Your task to perform on an android device: Clear the cart on bestbuy.com. Search for razer kraken on bestbuy.com, select the first entry, add it to the cart, then select checkout. Image 0: 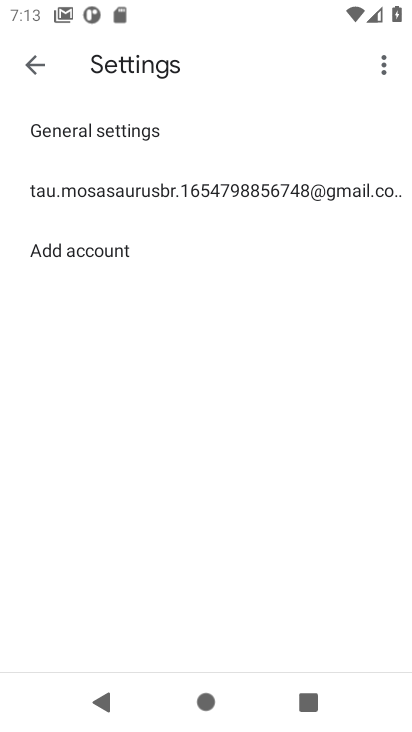
Step 0: press home button
Your task to perform on an android device: Clear the cart on bestbuy.com. Search for razer kraken on bestbuy.com, select the first entry, add it to the cart, then select checkout. Image 1: 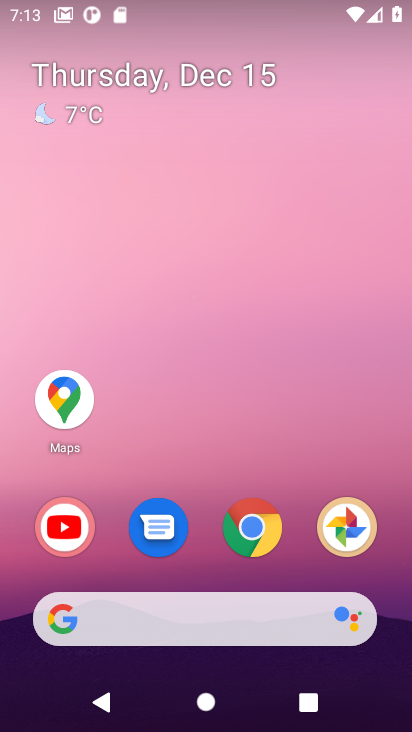
Step 1: click (254, 547)
Your task to perform on an android device: Clear the cart on bestbuy.com. Search for razer kraken on bestbuy.com, select the first entry, add it to the cart, then select checkout. Image 2: 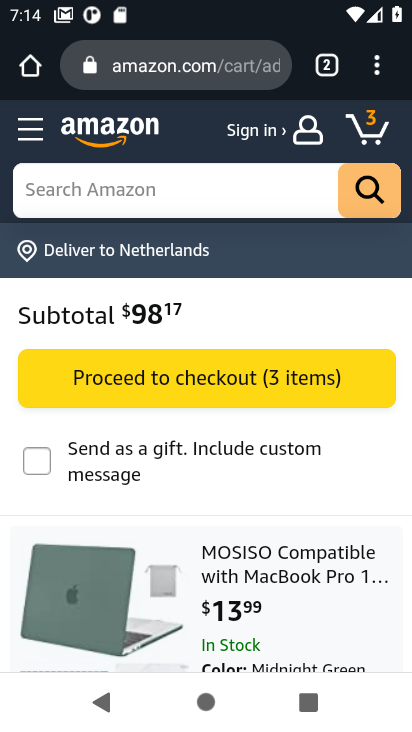
Step 2: click (124, 209)
Your task to perform on an android device: Clear the cart on bestbuy.com. Search for razer kraken on bestbuy.com, select the first entry, add it to the cart, then select checkout. Image 3: 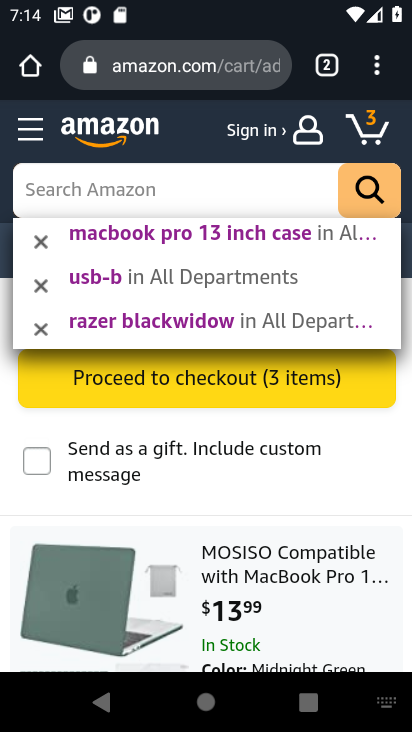
Step 3: type "razer karken"
Your task to perform on an android device: Clear the cart on bestbuy.com. Search for razer kraken on bestbuy.com, select the first entry, add it to the cart, then select checkout. Image 4: 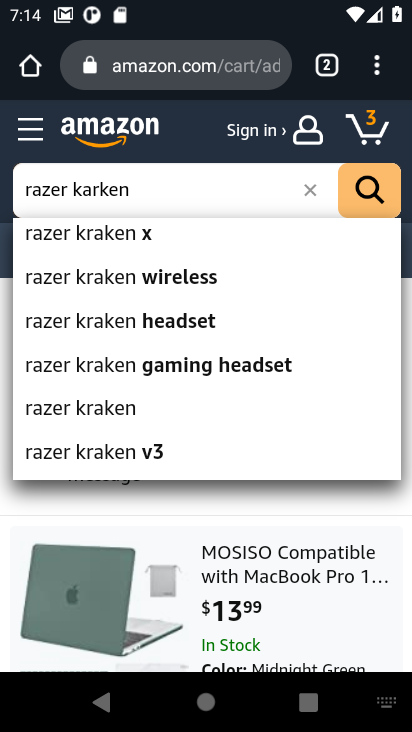
Step 4: click (366, 189)
Your task to perform on an android device: Clear the cart on bestbuy.com. Search for razer kraken on bestbuy.com, select the first entry, add it to the cart, then select checkout. Image 5: 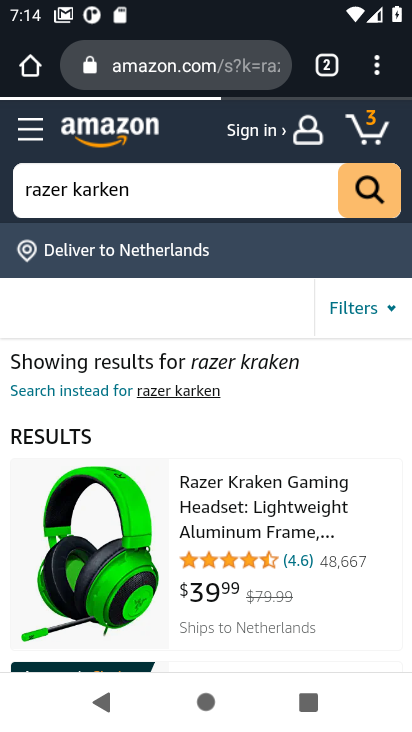
Step 5: click (252, 521)
Your task to perform on an android device: Clear the cart on bestbuy.com. Search for razer kraken on bestbuy.com, select the first entry, add it to the cart, then select checkout. Image 6: 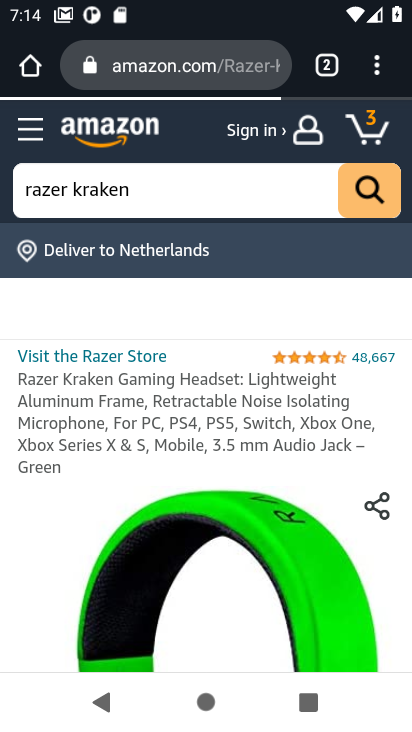
Step 6: drag from (252, 521) to (263, 383)
Your task to perform on an android device: Clear the cart on bestbuy.com. Search for razer kraken on bestbuy.com, select the first entry, add it to the cart, then select checkout. Image 7: 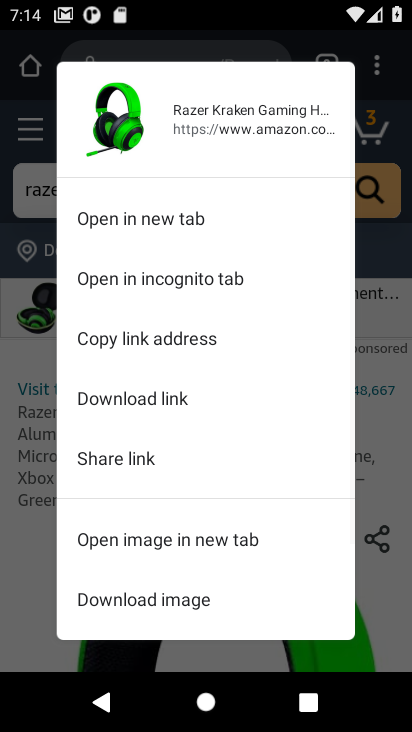
Step 7: click (399, 491)
Your task to perform on an android device: Clear the cart on bestbuy.com. Search for razer kraken on bestbuy.com, select the first entry, add it to the cart, then select checkout. Image 8: 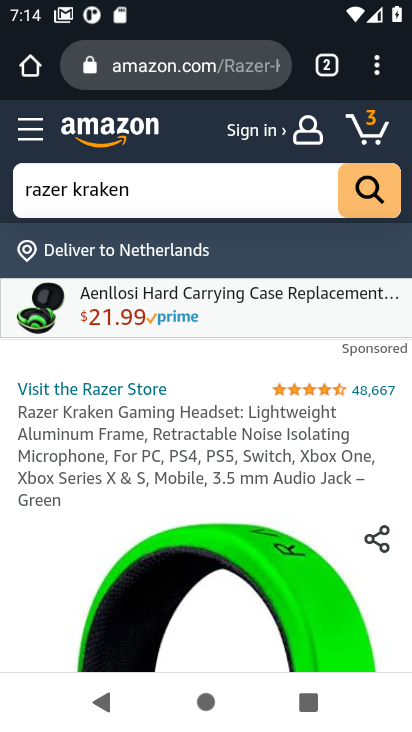
Step 8: drag from (146, 537) to (181, 272)
Your task to perform on an android device: Clear the cart on bestbuy.com. Search for razer kraken on bestbuy.com, select the first entry, add it to the cart, then select checkout. Image 9: 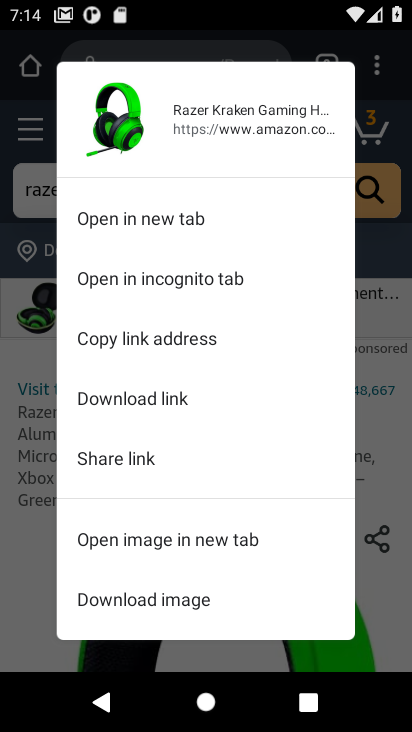
Step 9: click (387, 447)
Your task to perform on an android device: Clear the cart on bestbuy.com. Search for razer kraken on bestbuy.com, select the first entry, add it to the cart, then select checkout. Image 10: 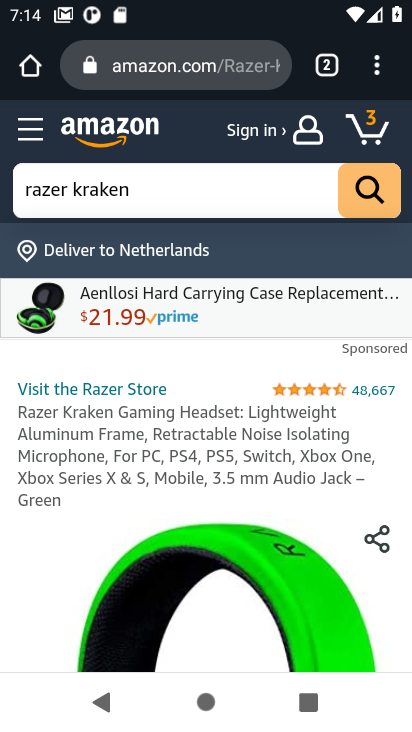
Step 10: drag from (119, 652) to (179, 188)
Your task to perform on an android device: Clear the cart on bestbuy.com. Search for razer kraken on bestbuy.com, select the first entry, add it to the cart, then select checkout. Image 11: 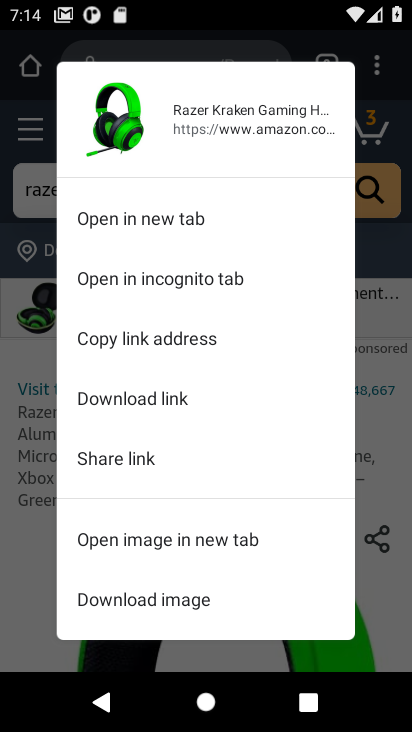
Step 11: click (17, 535)
Your task to perform on an android device: Clear the cart on bestbuy.com. Search for razer kraken on bestbuy.com, select the first entry, add it to the cart, then select checkout. Image 12: 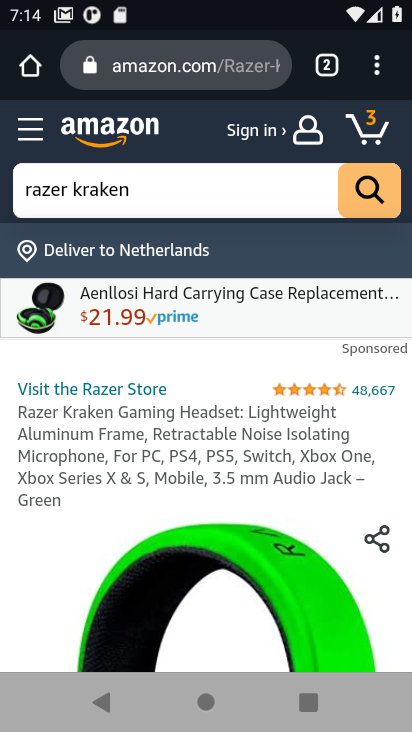
Step 12: drag from (17, 535) to (83, 248)
Your task to perform on an android device: Clear the cart on bestbuy.com. Search for razer kraken on bestbuy.com, select the first entry, add it to the cart, then select checkout. Image 13: 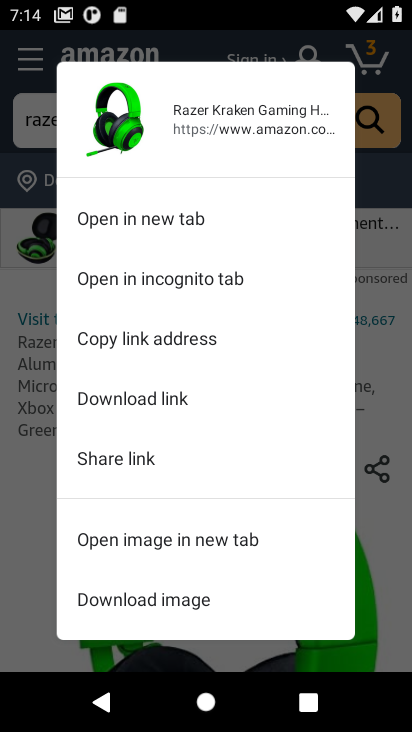
Step 13: click (23, 611)
Your task to perform on an android device: Clear the cart on bestbuy.com. Search for razer kraken on bestbuy.com, select the first entry, add it to the cart, then select checkout. Image 14: 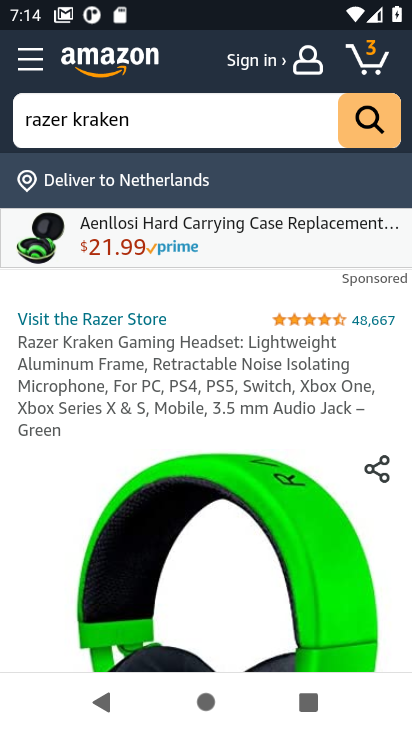
Step 14: task complete